Your task to perform on an android device: Go to internet settings Image 0: 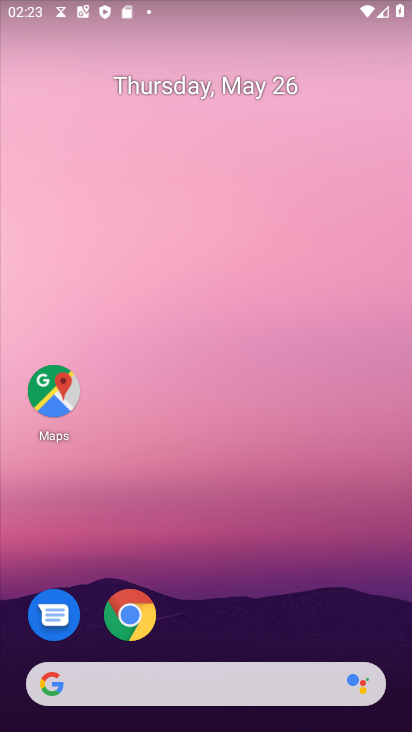
Step 0: drag from (220, 637) to (199, 24)
Your task to perform on an android device: Go to internet settings Image 1: 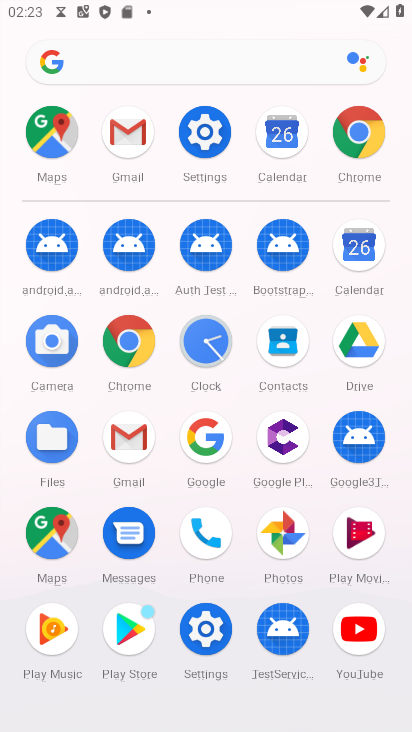
Step 1: click (202, 125)
Your task to perform on an android device: Go to internet settings Image 2: 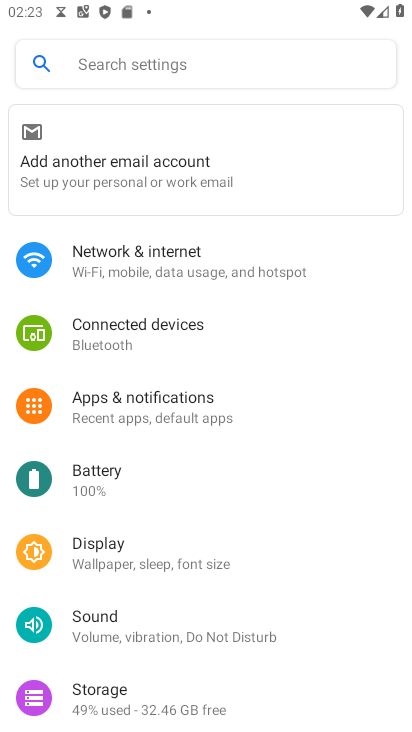
Step 2: click (216, 252)
Your task to perform on an android device: Go to internet settings Image 3: 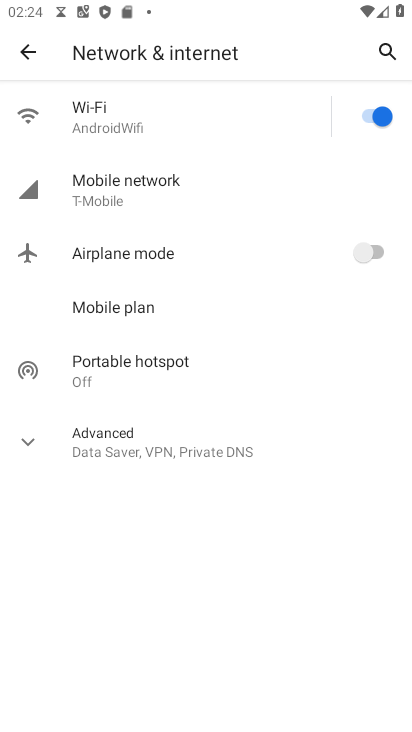
Step 3: click (28, 431)
Your task to perform on an android device: Go to internet settings Image 4: 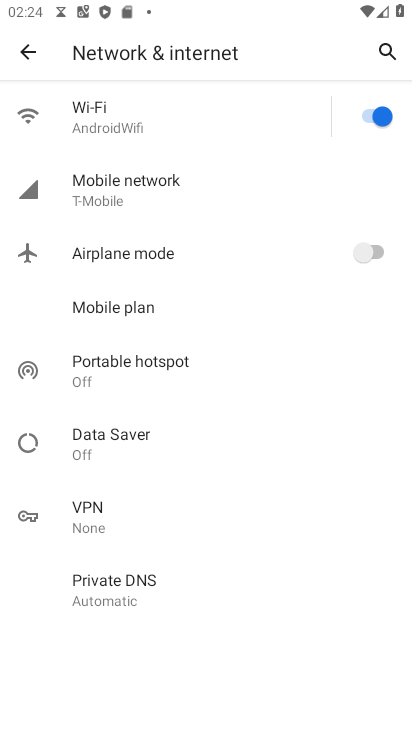
Step 4: task complete